Your task to perform on an android device: Open wifi settings Image 0: 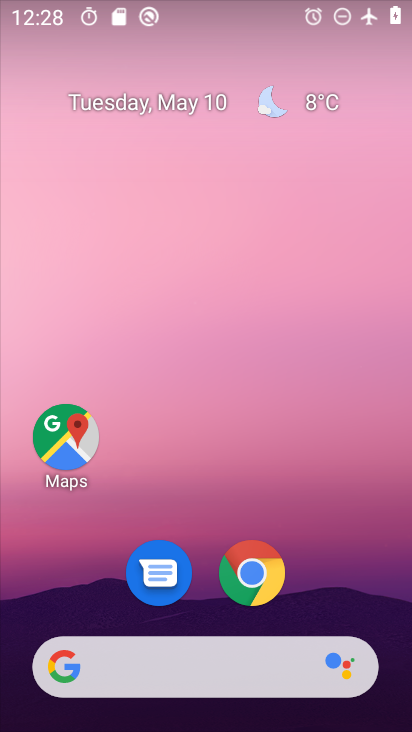
Step 0: drag from (348, 548) to (327, 174)
Your task to perform on an android device: Open wifi settings Image 1: 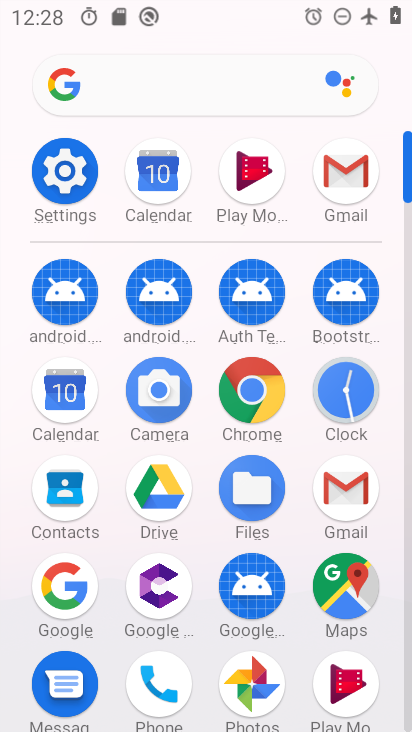
Step 1: click (50, 159)
Your task to perform on an android device: Open wifi settings Image 2: 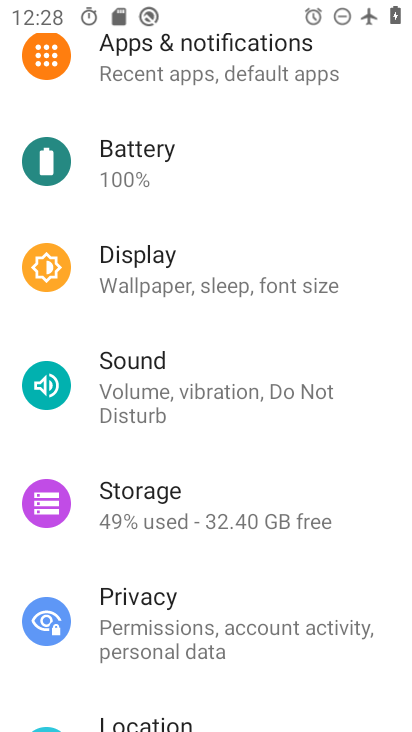
Step 2: drag from (242, 143) to (251, 537)
Your task to perform on an android device: Open wifi settings Image 3: 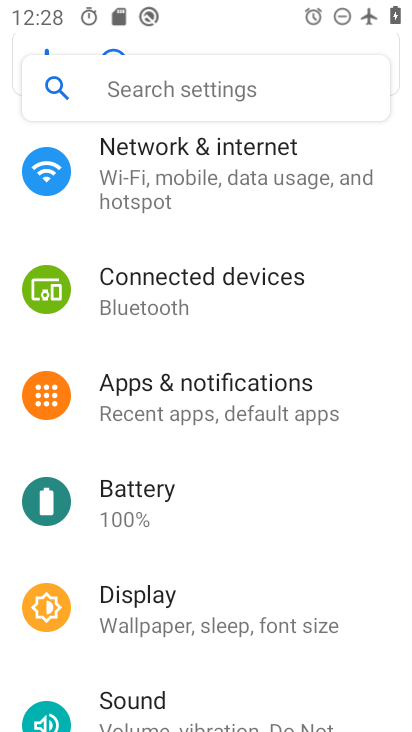
Step 3: click (197, 185)
Your task to perform on an android device: Open wifi settings Image 4: 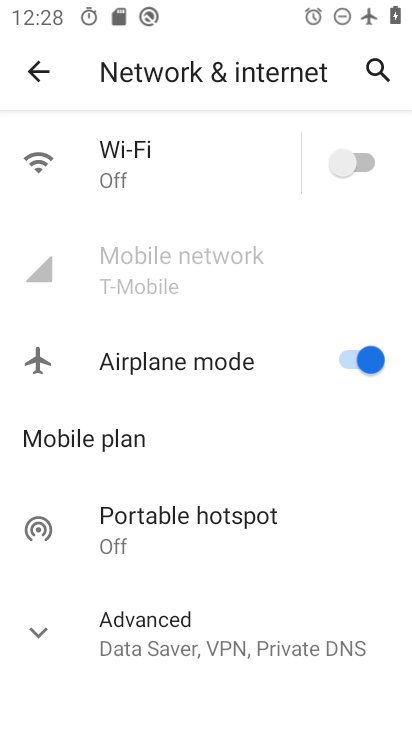
Step 4: click (168, 142)
Your task to perform on an android device: Open wifi settings Image 5: 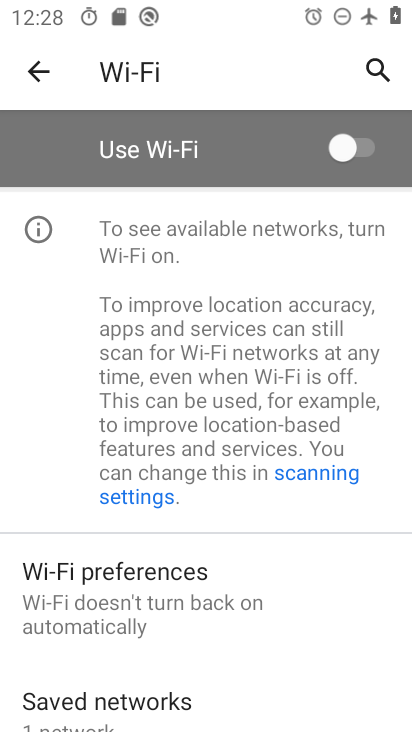
Step 5: click (355, 157)
Your task to perform on an android device: Open wifi settings Image 6: 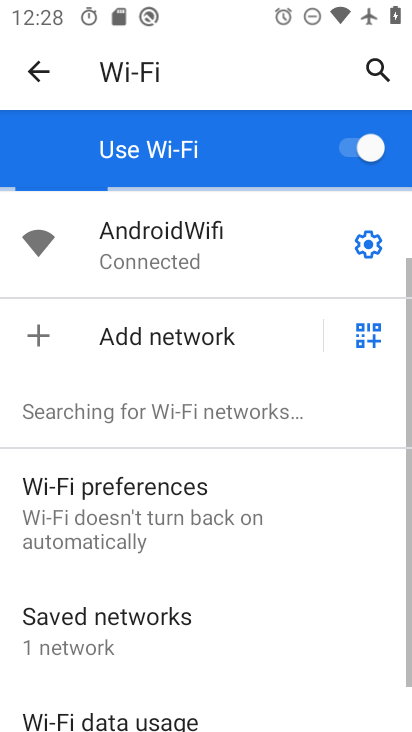
Step 6: click (372, 257)
Your task to perform on an android device: Open wifi settings Image 7: 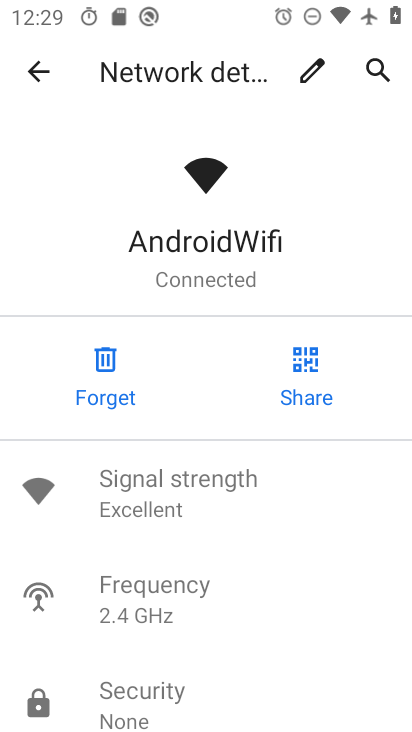
Step 7: task complete